Your task to perform on an android device: check android version Image 0: 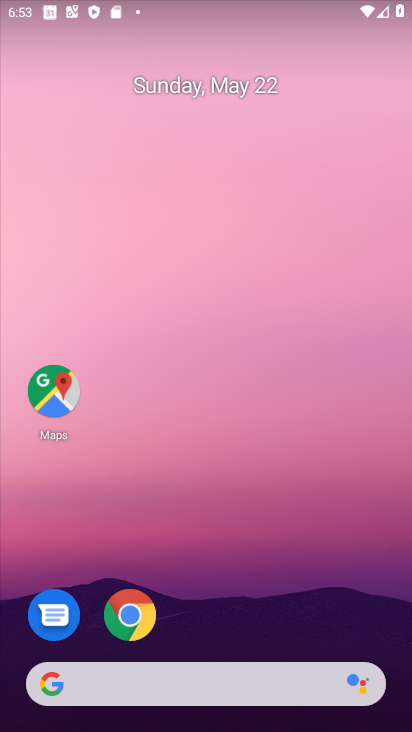
Step 0: drag from (283, 541) to (275, 33)
Your task to perform on an android device: check android version Image 1: 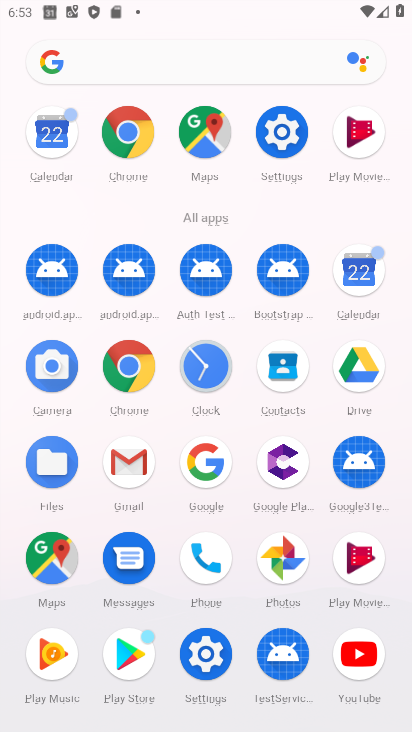
Step 1: click (277, 128)
Your task to perform on an android device: check android version Image 2: 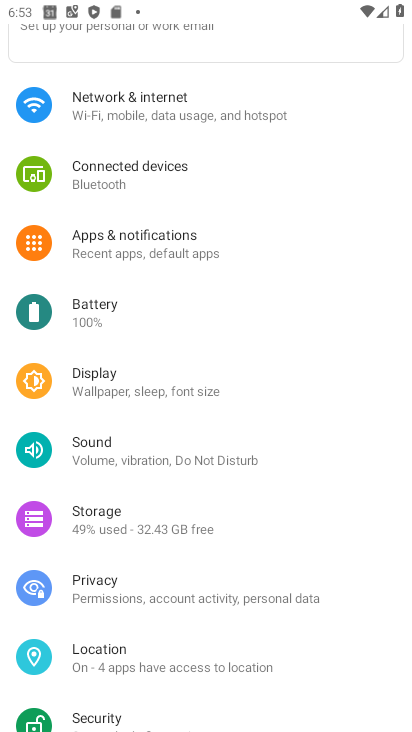
Step 2: drag from (300, 621) to (260, 194)
Your task to perform on an android device: check android version Image 3: 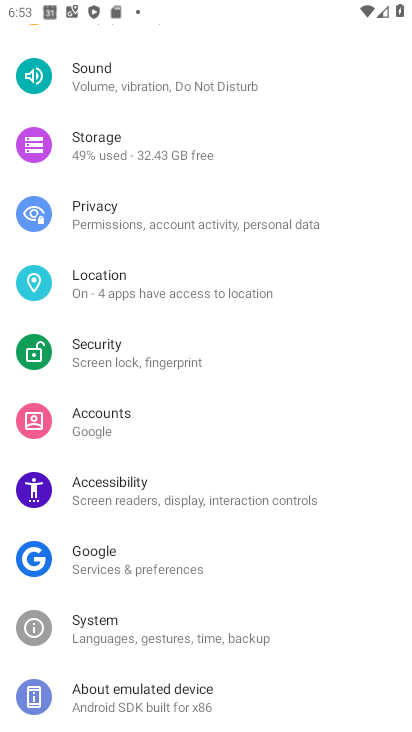
Step 3: drag from (327, 645) to (286, 170)
Your task to perform on an android device: check android version Image 4: 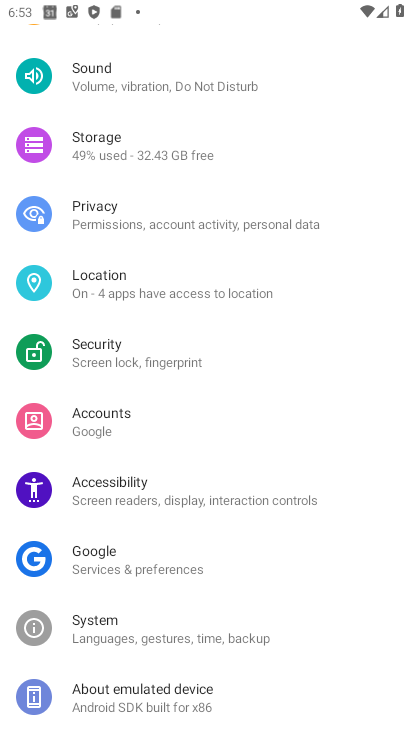
Step 4: click (124, 686)
Your task to perform on an android device: check android version Image 5: 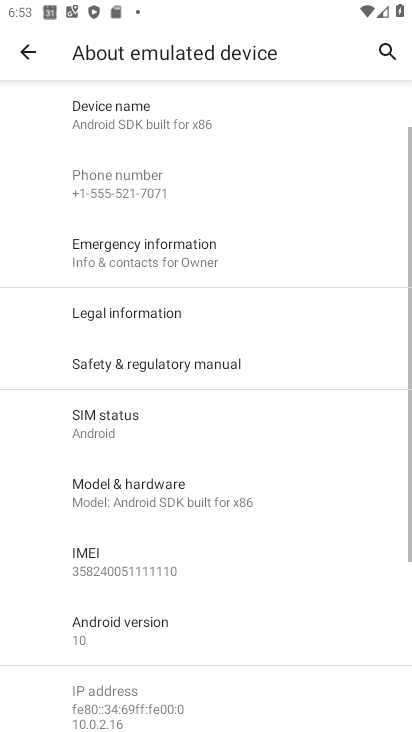
Step 5: task complete